Your task to perform on an android device: toggle priority inbox in the gmail app Image 0: 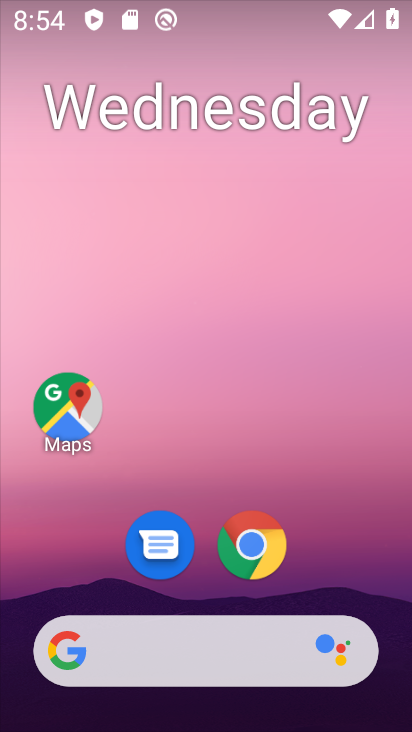
Step 0: click (362, 598)
Your task to perform on an android device: toggle priority inbox in the gmail app Image 1: 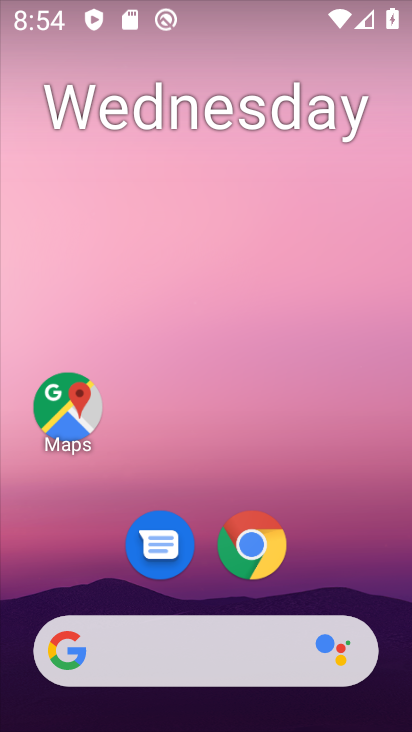
Step 1: drag from (362, 598) to (317, 162)
Your task to perform on an android device: toggle priority inbox in the gmail app Image 2: 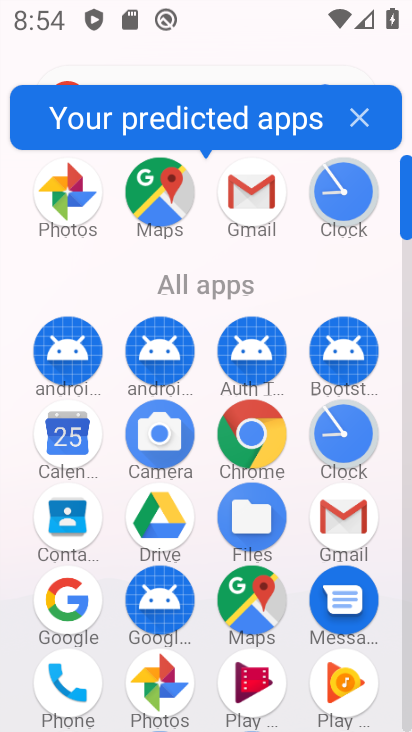
Step 2: click (245, 194)
Your task to perform on an android device: toggle priority inbox in the gmail app Image 3: 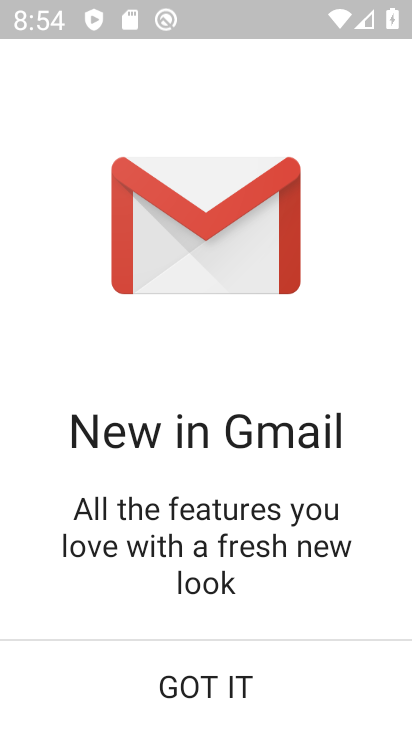
Step 3: click (220, 683)
Your task to perform on an android device: toggle priority inbox in the gmail app Image 4: 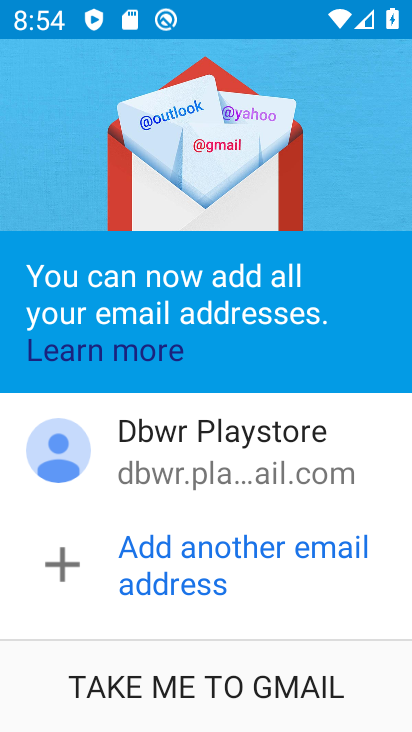
Step 4: click (221, 681)
Your task to perform on an android device: toggle priority inbox in the gmail app Image 5: 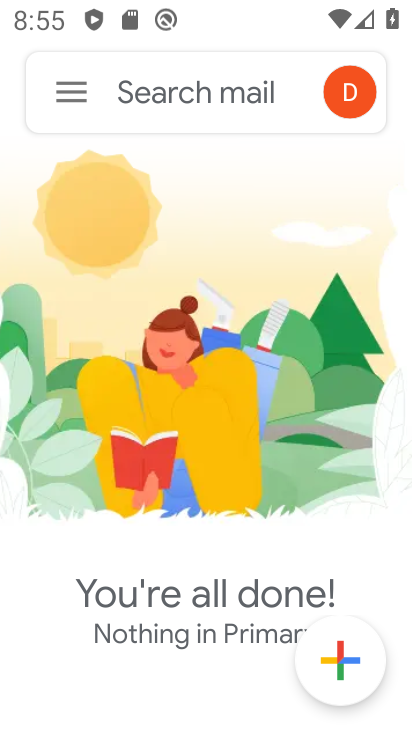
Step 5: click (66, 100)
Your task to perform on an android device: toggle priority inbox in the gmail app Image 6: 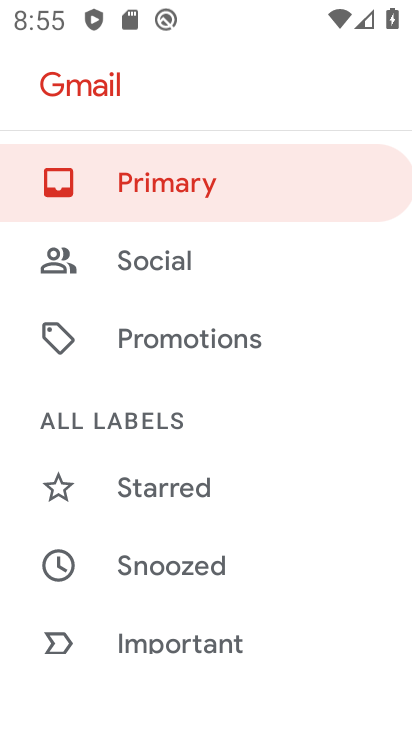
Step 6: drag from (176, 675) to (155, 236)
Your task to perform on an android device: toggle priority inbox in the gmail app Image 7: 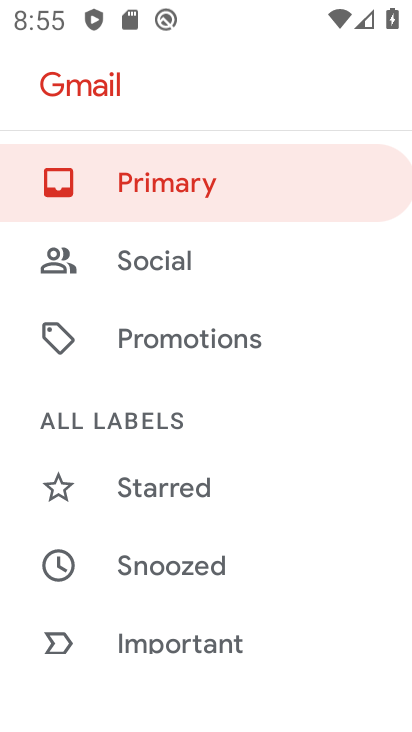
Step 7: drag from (98, 675) to (205, 239)
Your task to perform on an android device: toggle priority inbox in the gmail app Image 8: 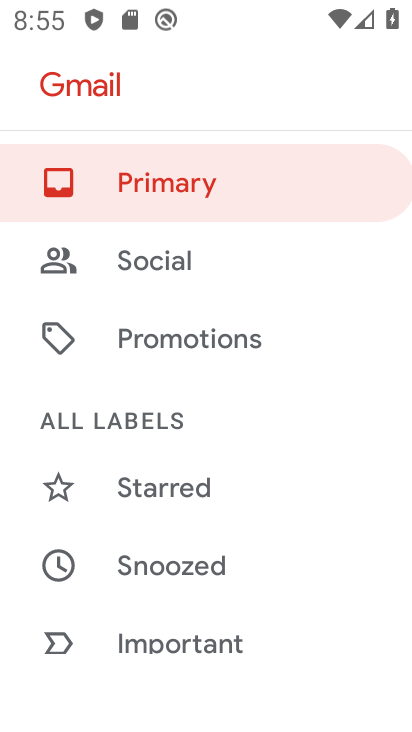
Step 8: drag from (176, 642) to (164, 187)
Your task to perform on an android device: toggle priority inbox in the gmail app Image 9: 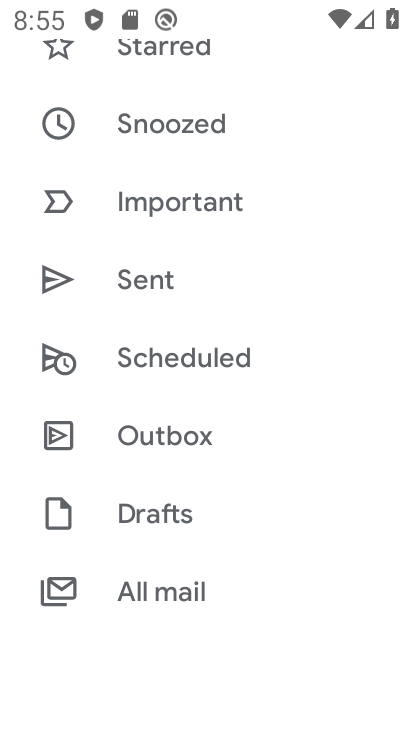
Step 9: drag from (153, 673) to (143, 74)
Your task to perform on an android device: toggle priority inbox in the gmail app Image 10: 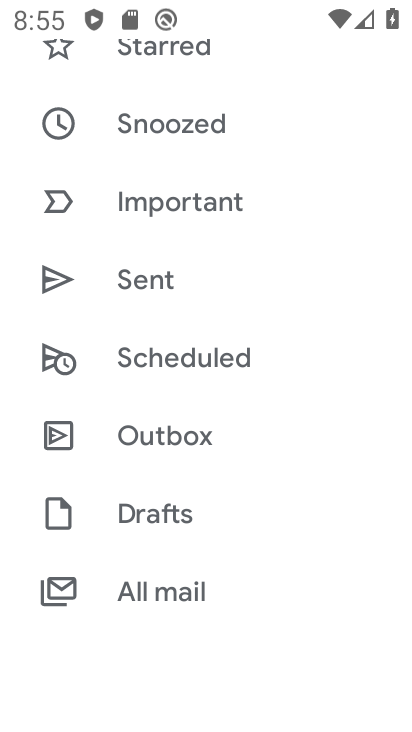
Step 10: drag from (149, 540) to (147, 83)
Your task to perform on an android device: toggle priority inbox in the gmail app Image 11: 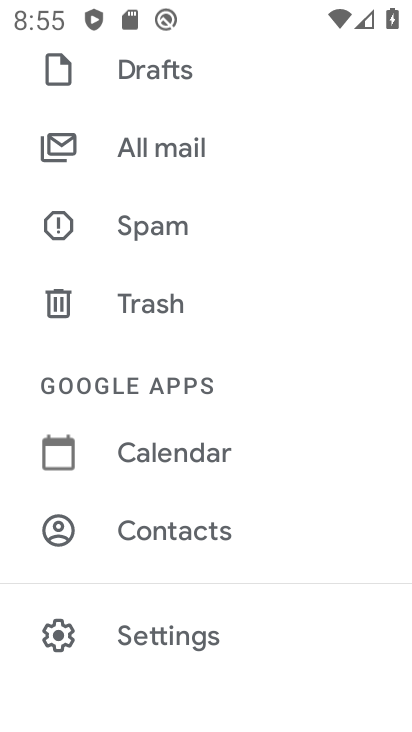
Step 11: click (150, 651)
Your task to perform on an android device: toggle priority inbox in the gmail app Image 12: 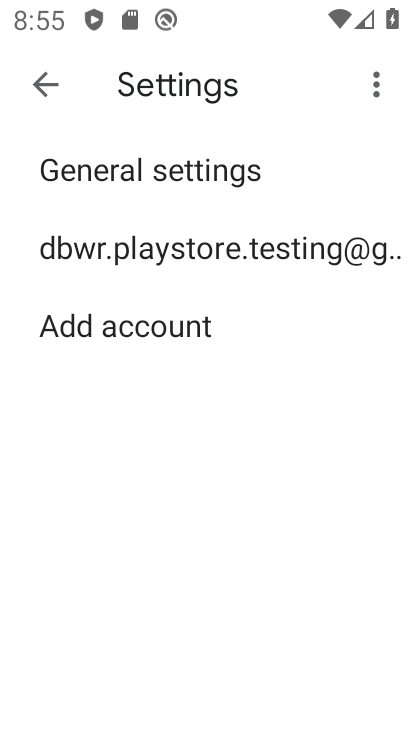
Step 12: click (298, 241)
Your task to perform on an android device: toggle priority inbox in the gmail app Image 13: 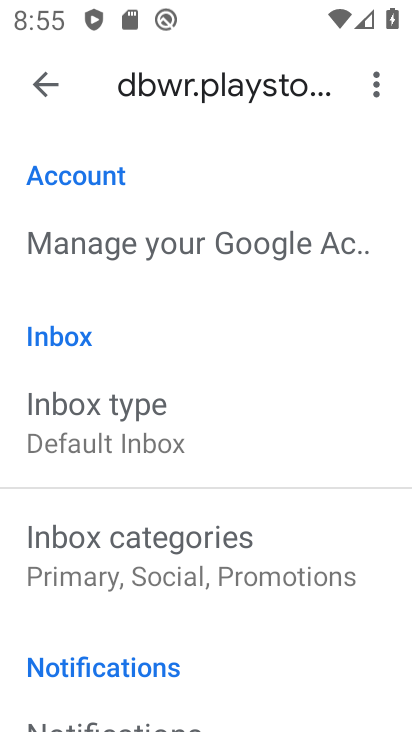
Step 13: click (149, 420)
Your task to perform on an android device: toggle priority inbox in the gmail app Image 14: 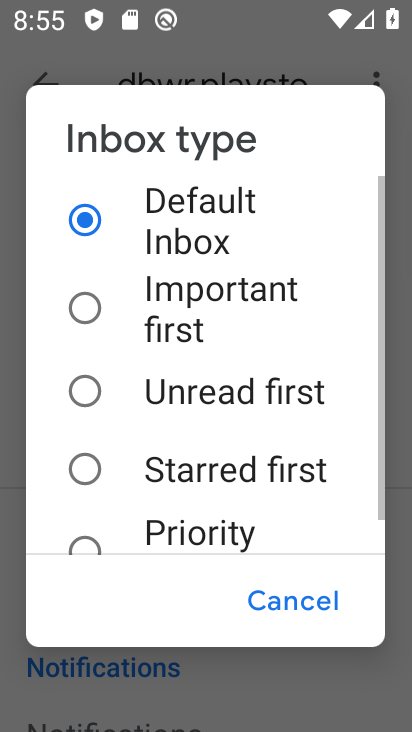
Step 14: click (185, 536)
Your task to perform on an android device: toggle priority inbox in the gmail app Image 15: 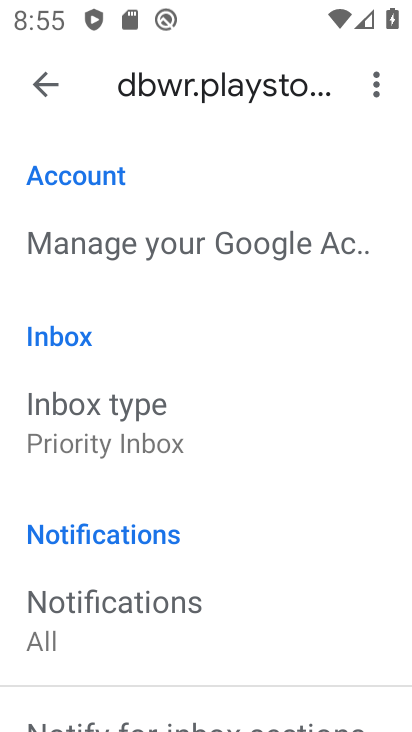
Step 15: task complete